Your task to perform on an android device: clear history in the chrome app Image 0: 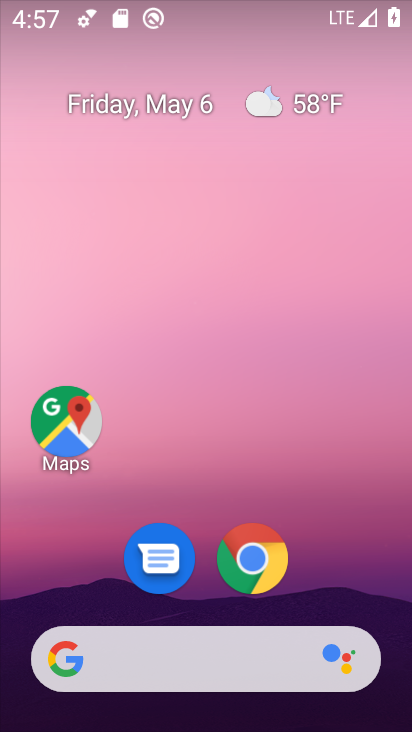
Step 0: click (270, 571)
Your task to perform on an android device: clear history in the chrome app Image 1: 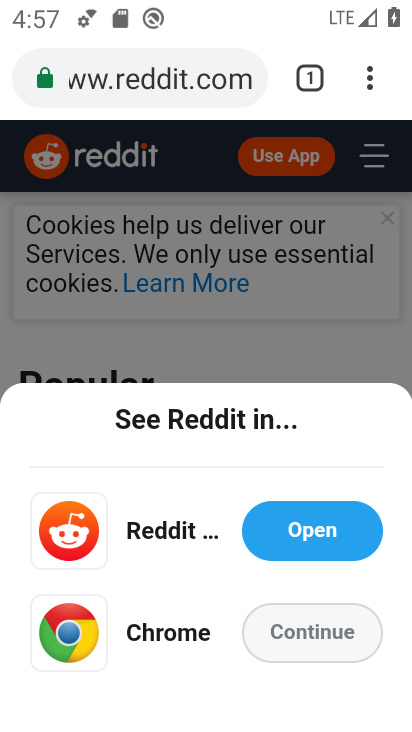
Step 1: drag from (374, 73) to (111, 455)
Your task to perform on an android device: clear history in the chrome app Image 2: 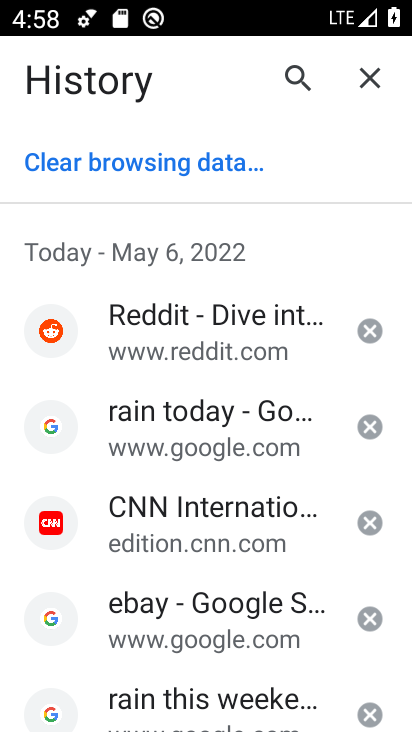
Step 2: click (218, 156)
Your task to perform on an android device: clear history in the chrome app Image 3: 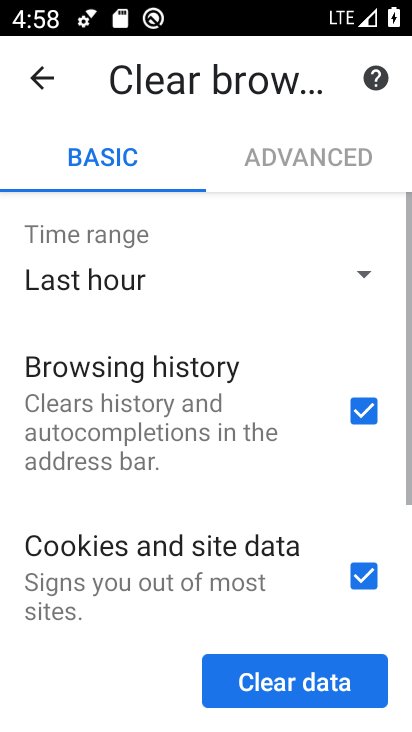
Step 3: click (297, 675)
Your task to perform on an android device: clear history in the chrome app Image 4: 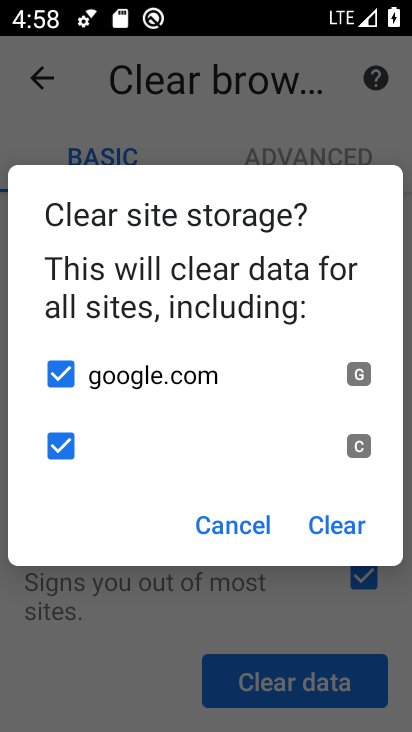
Step 4: click (323, 532)
Your task to perform on an android device: clear history in the chrome app Image 5: 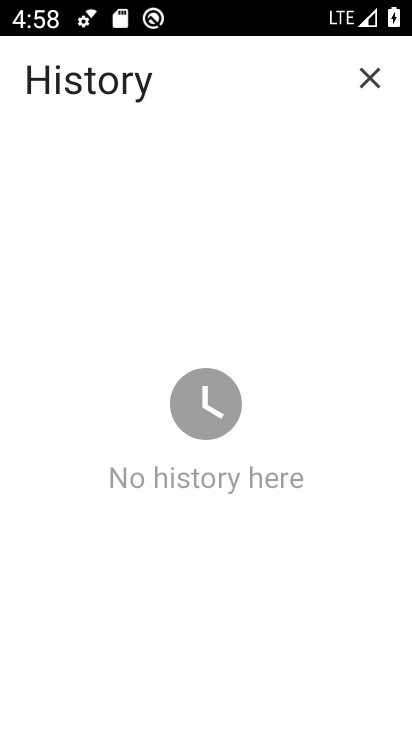
Step 5: task complete